Your task to perform on an android device: uninstall "Calculator" Image 0: 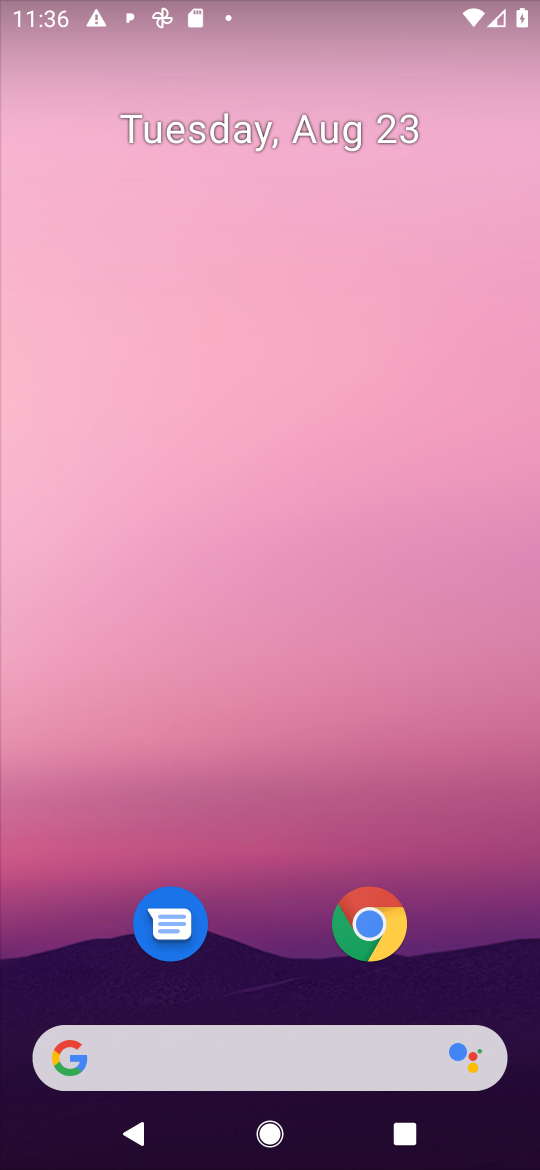
Step 0: press home button
Your task to perform on an android device: uninstall "Calculator" Image 1: 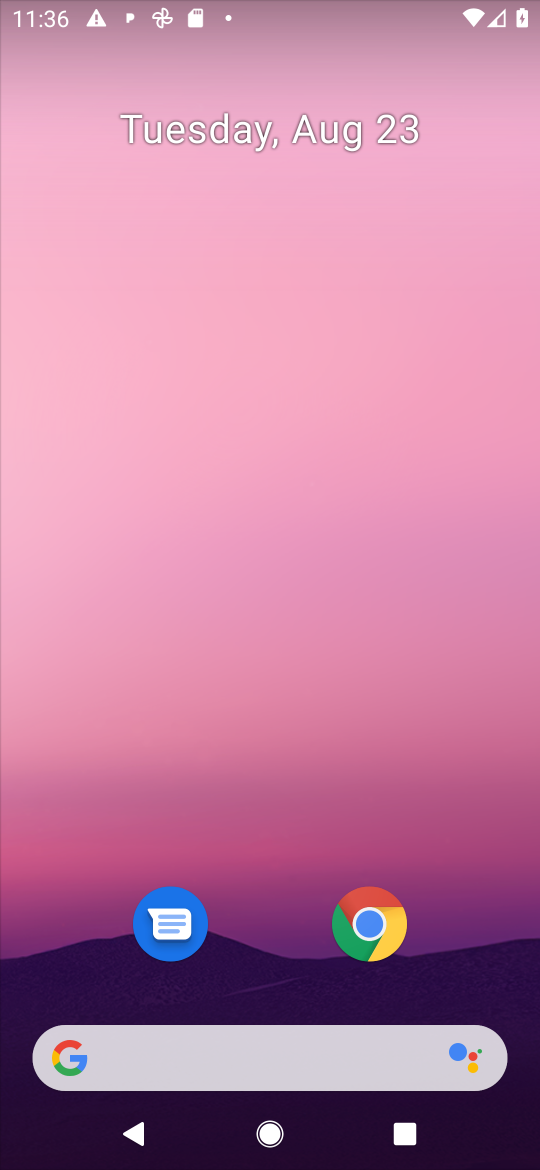
Step 1: drag from (454, 949) to (470, 263)
Your task to perform on an android device: uninstall "Calculator" Image 2: 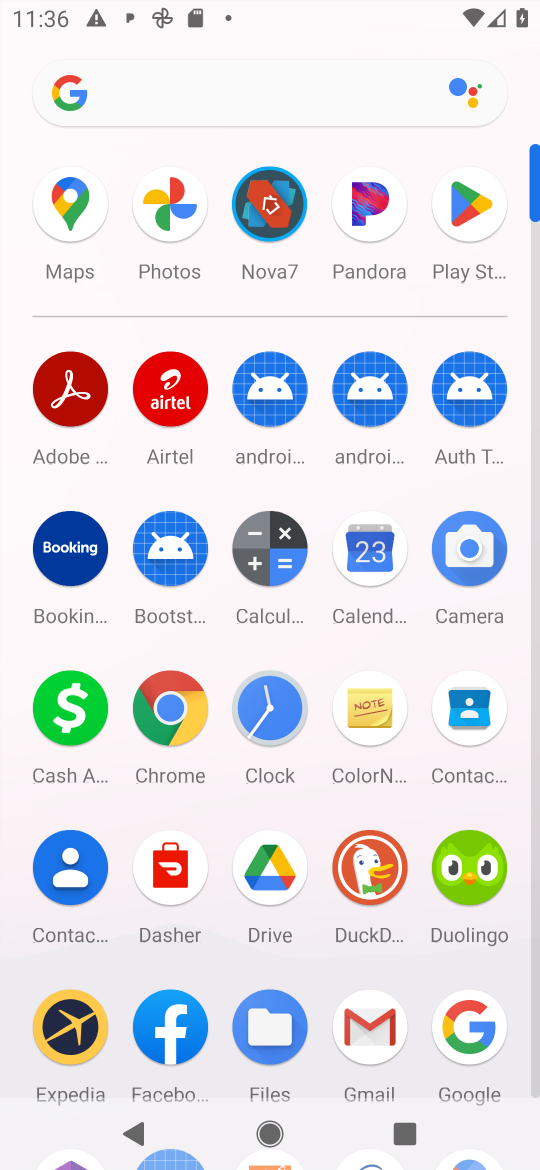
Step 2: click (472, 211)
Your task to perform on an android device: uninstall "Calculator" Image 3: 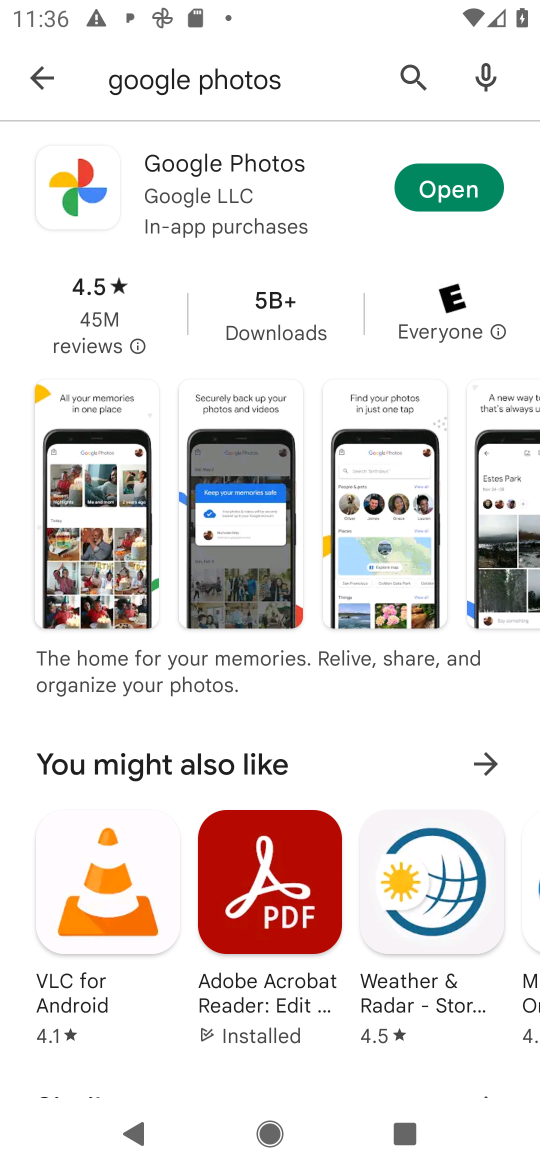
Step 3: press back button
Your task to perform on an android device: uninstall "Calculator" Image 4: 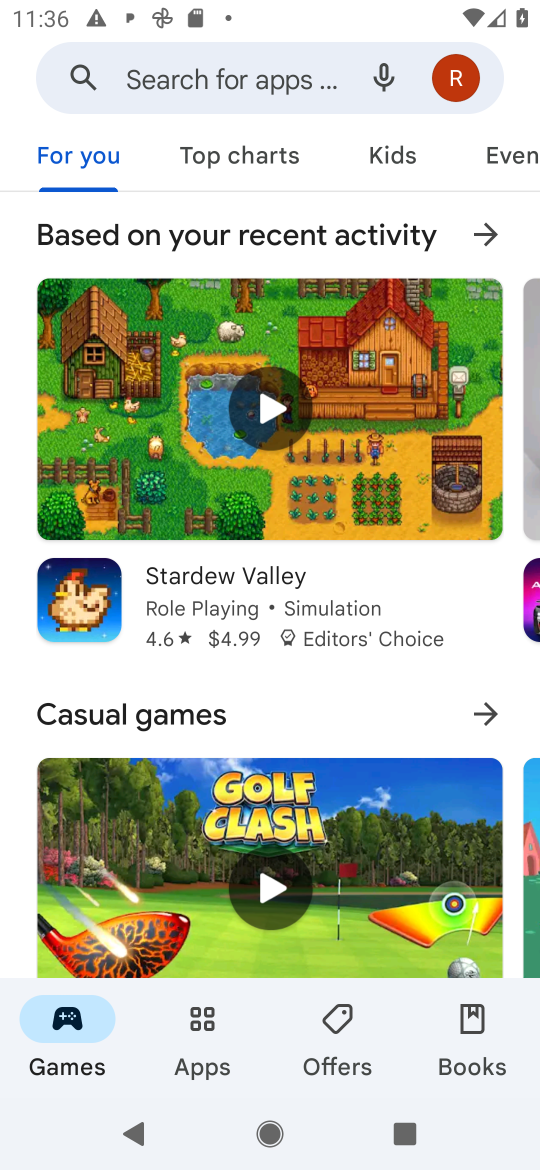
Step 4: click (261, 66)
Your task to perform on an android device: uninstall "Calculator" Image 5: 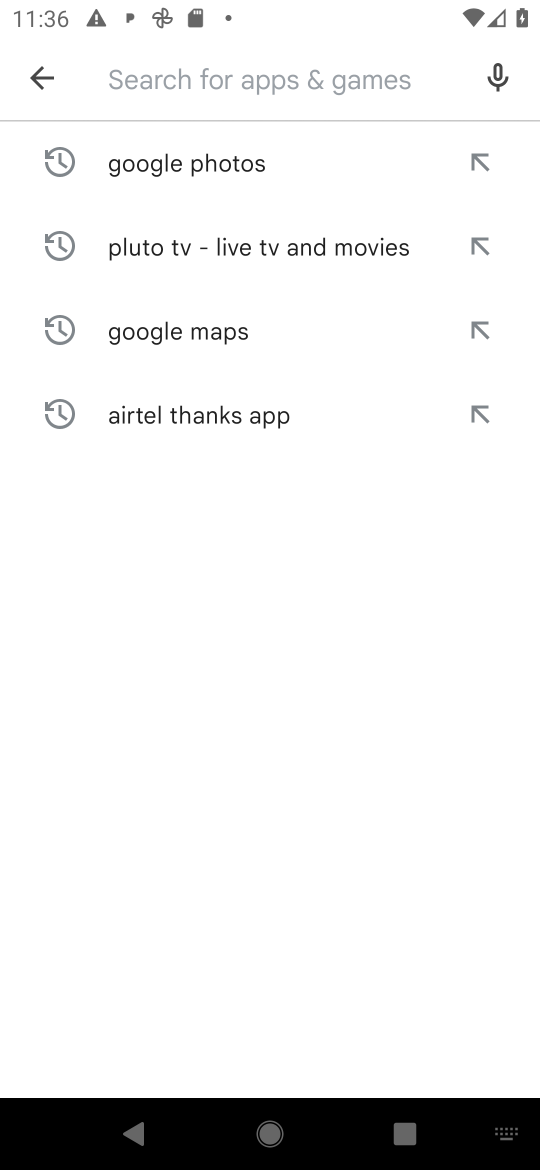
Step 5: type "calculator"
Your task to perform on an android device: uninstall "Calculator" Image 6: 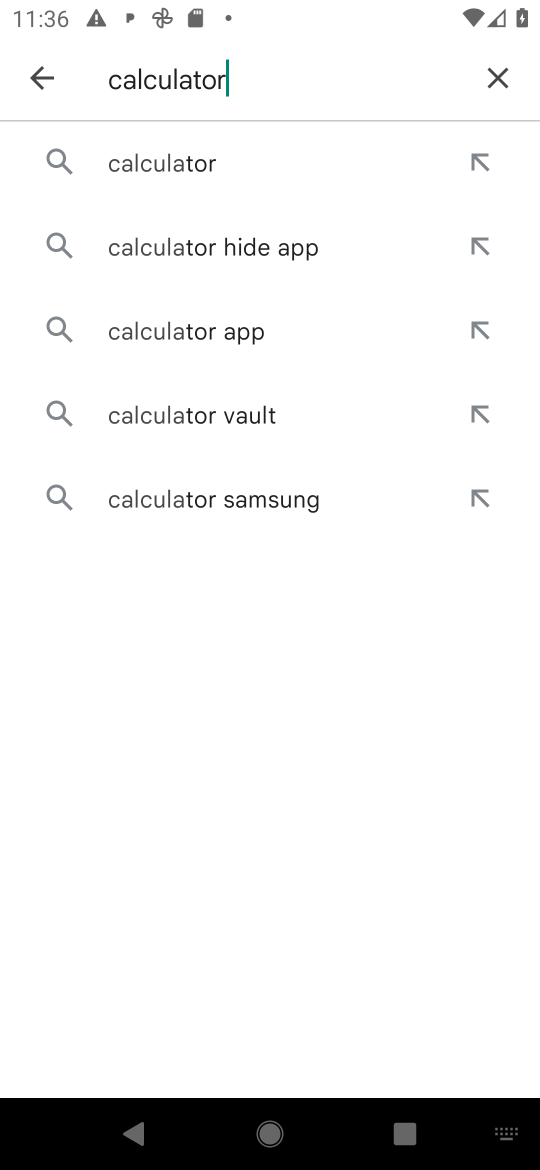
Step 6: press enter
Your task to perform on an android device: uninstall "Calculator" Image 7: 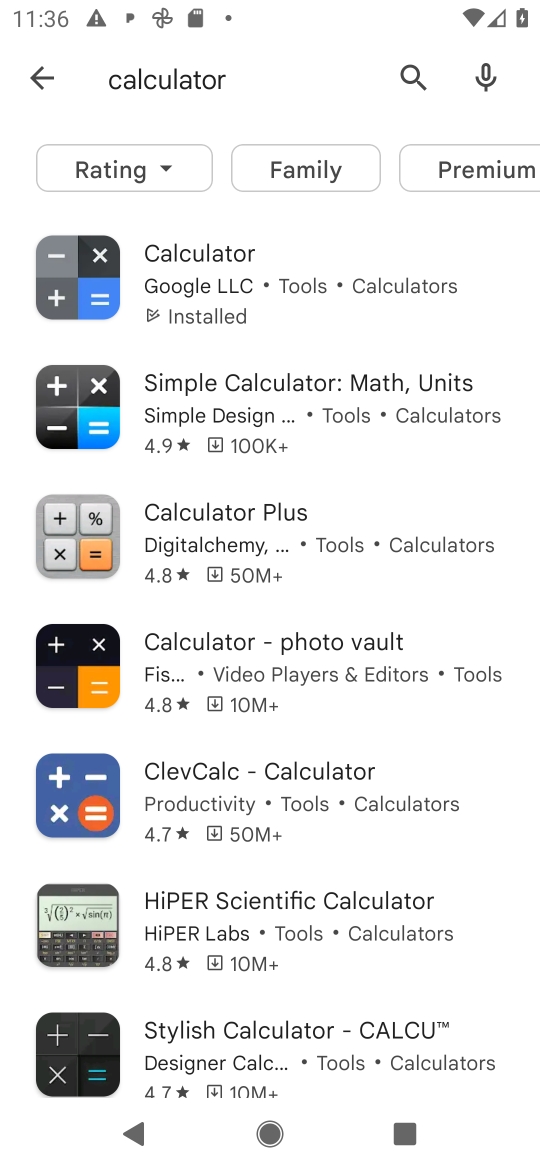
Step 7: drag from (458, 857) to (463, 630)
Your task to perform on an android device: uninstall "Calculator" Image 8: 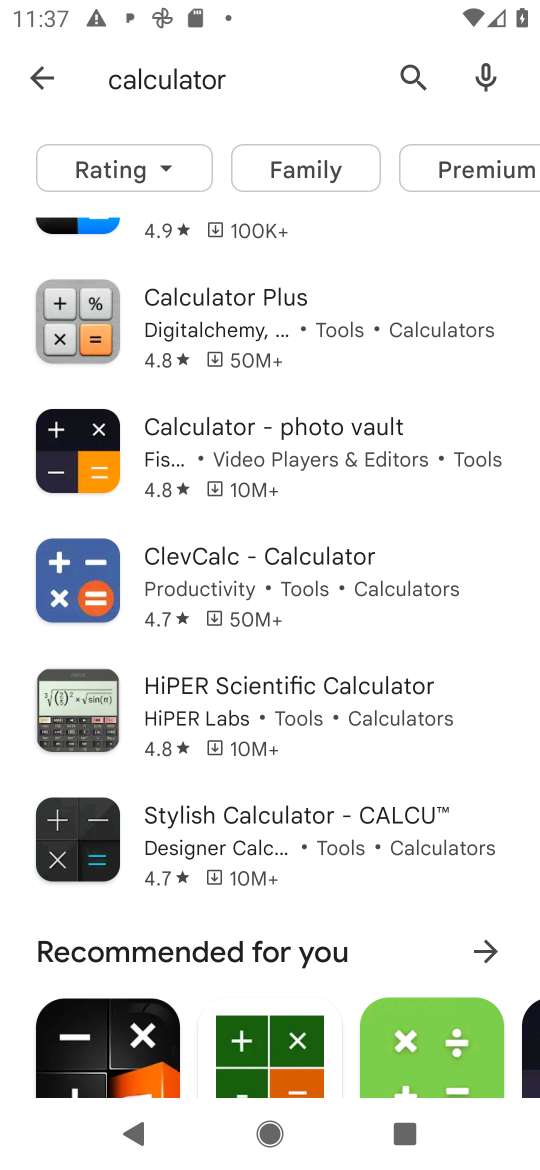
Step 8: drag from (505, 276) to (454, 746)
Your task to perform on an android device: uninstall "Calculator" Image 9: 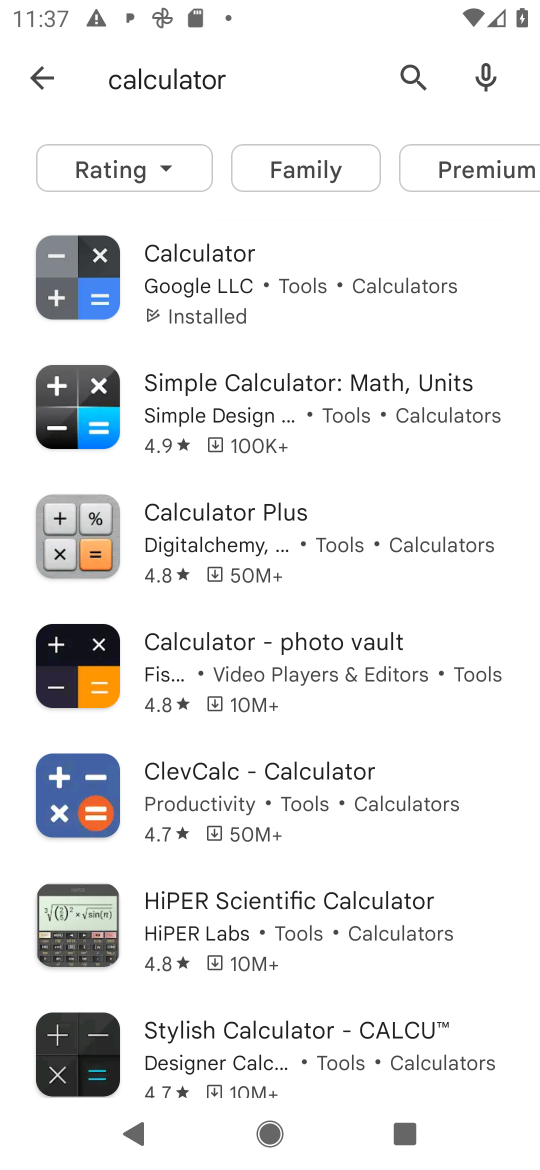
Step 9: click (226, 272)
Your task to perform on an android device: uninstall "Calculator" Image 10: 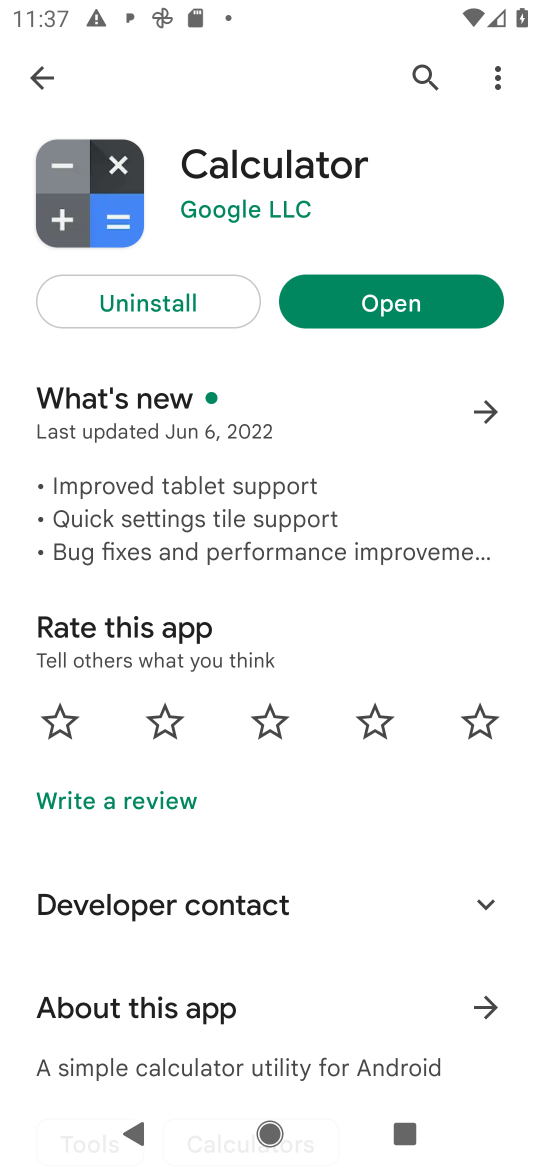
Step 10: click (149, 302)
Your task to perform on an android device: uninstall "Calculator" Image 11: 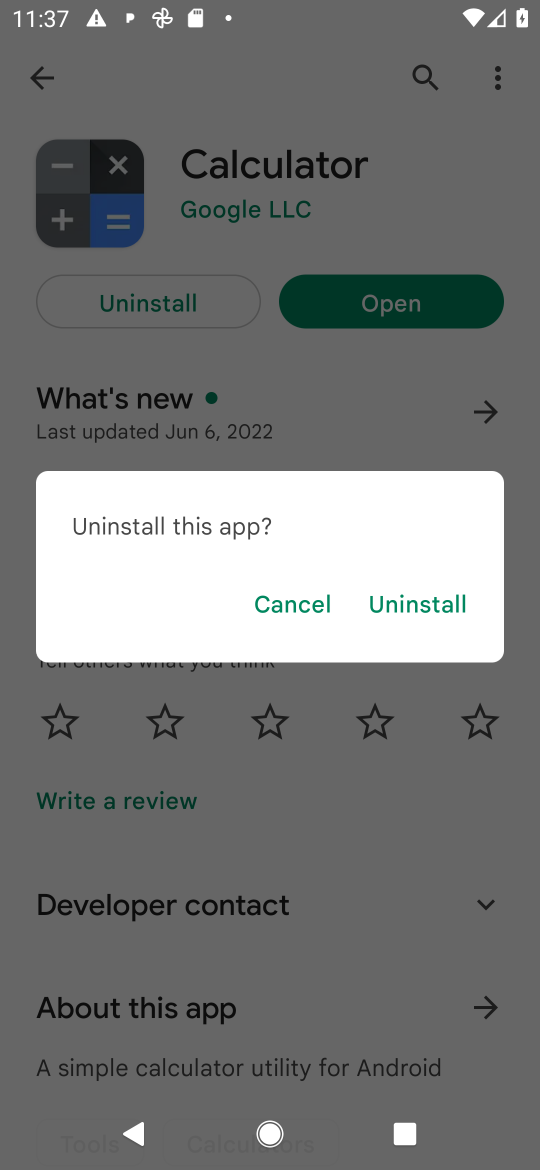
Step 11: click (401, 599)
Your task to perform on an android device: uninstall "Calculator" Image 12: 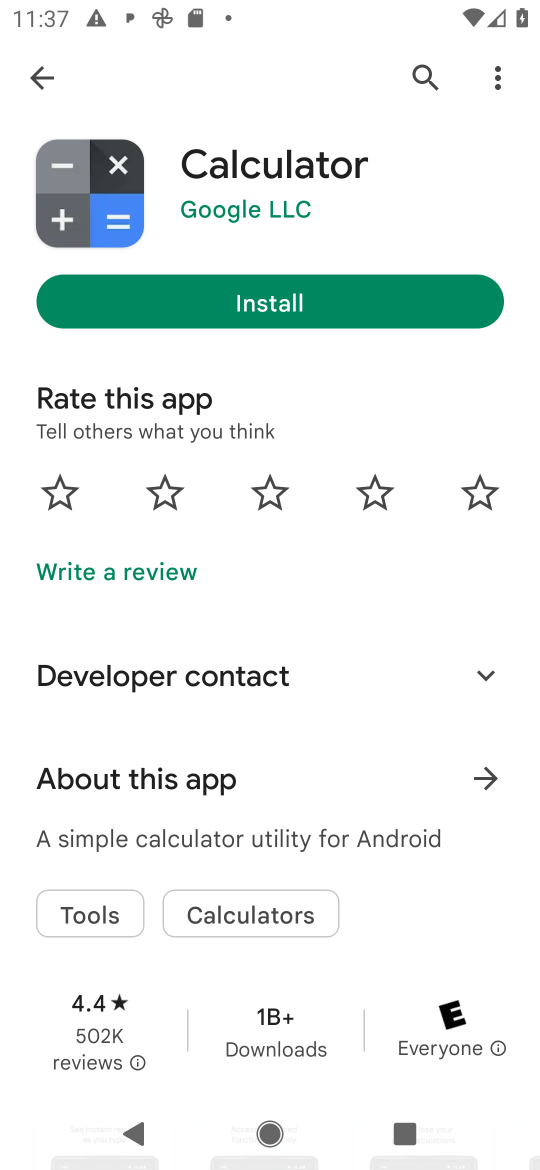
Step 12: task complete